Your task to perform on an android device: open app "Nova Launcher" Image 0: 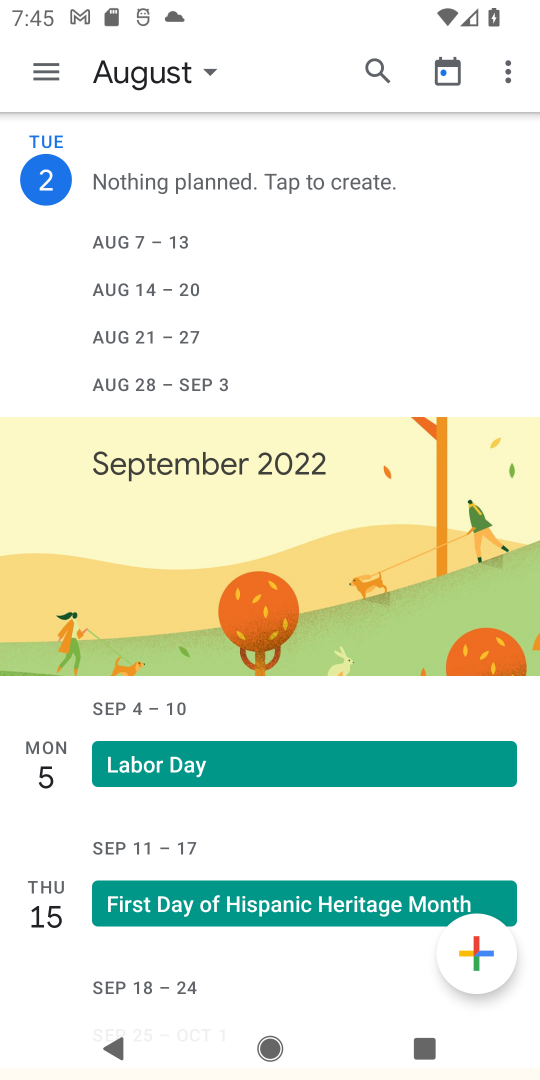
Step 0: press home button
Your task to perform on an android device: open app "Nova Launcher" Image 1: 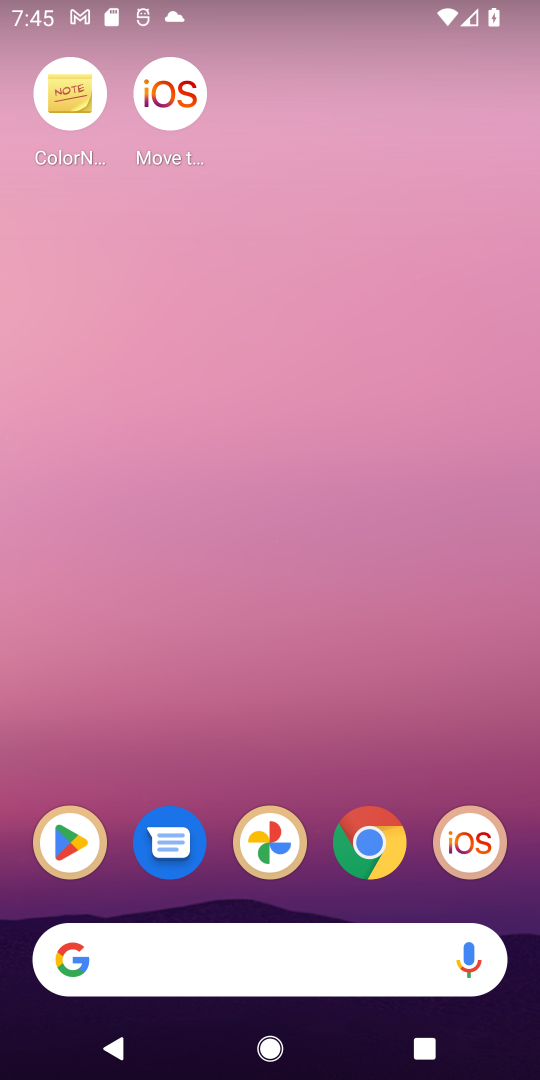
Step 1: click (49, 828)
Your task to perform on an android device: open app "Nova Launcher" Image 2: 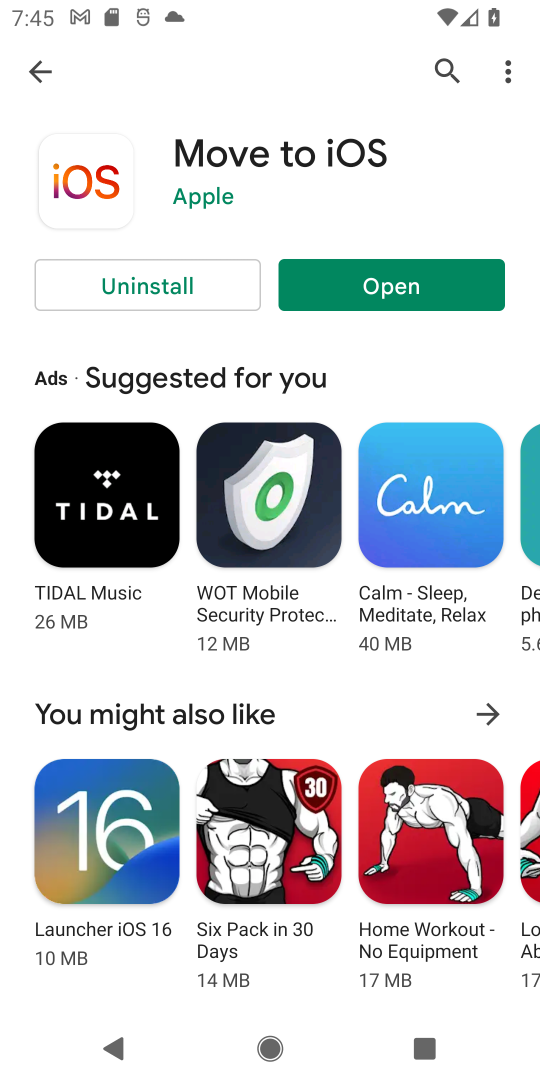
Step 2: click (39, 72)
Your task to perform on an android device: open app "Nova Launcher" Image 3: 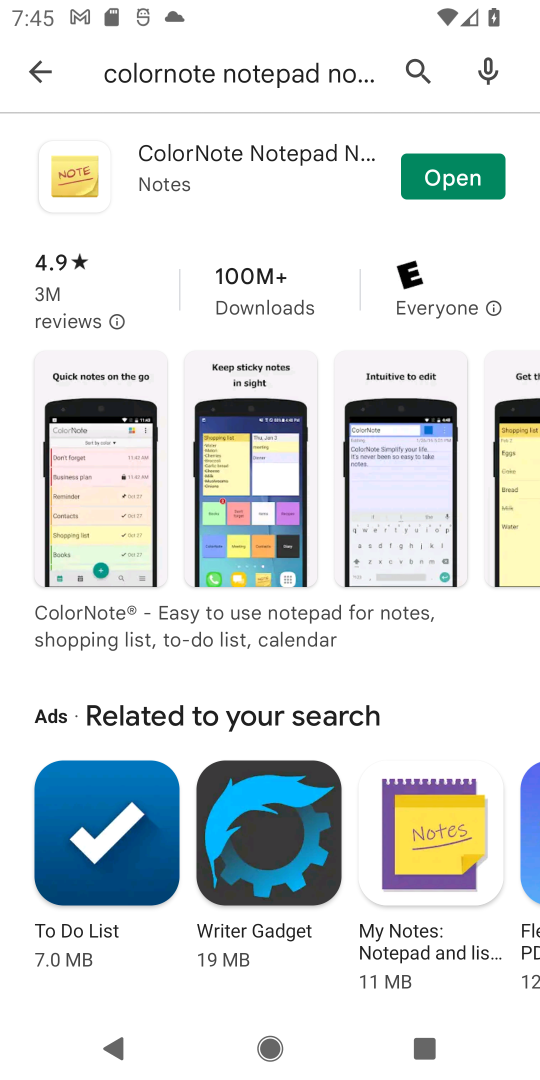
Step 3: click (241, 70)
Your task to perform on an android device: open app "Nova Launcher" Image 4: 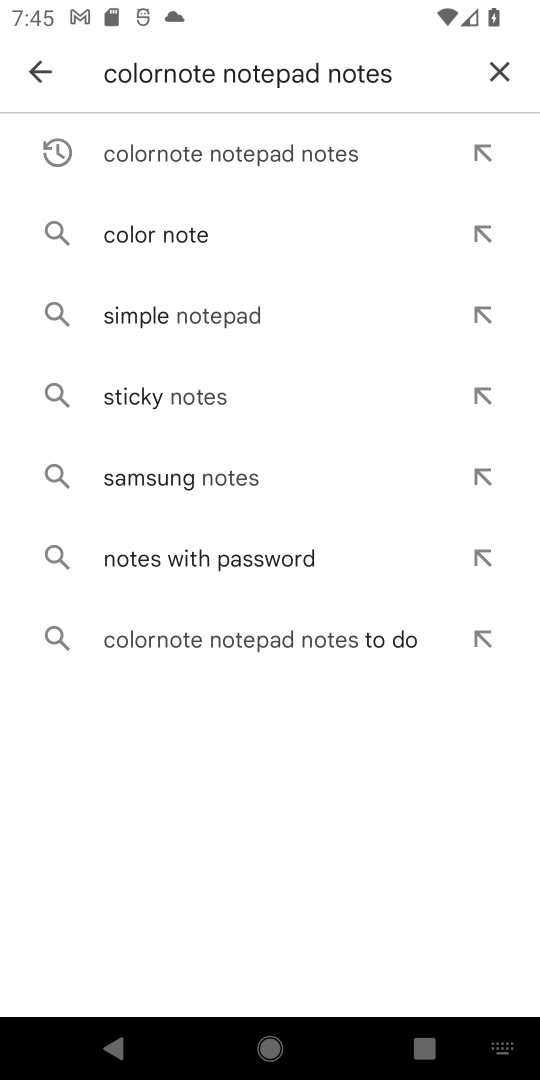
Step 4: click (493, 67)
Your task to perform on an android device: open app "Nova Launcher" Image 5: 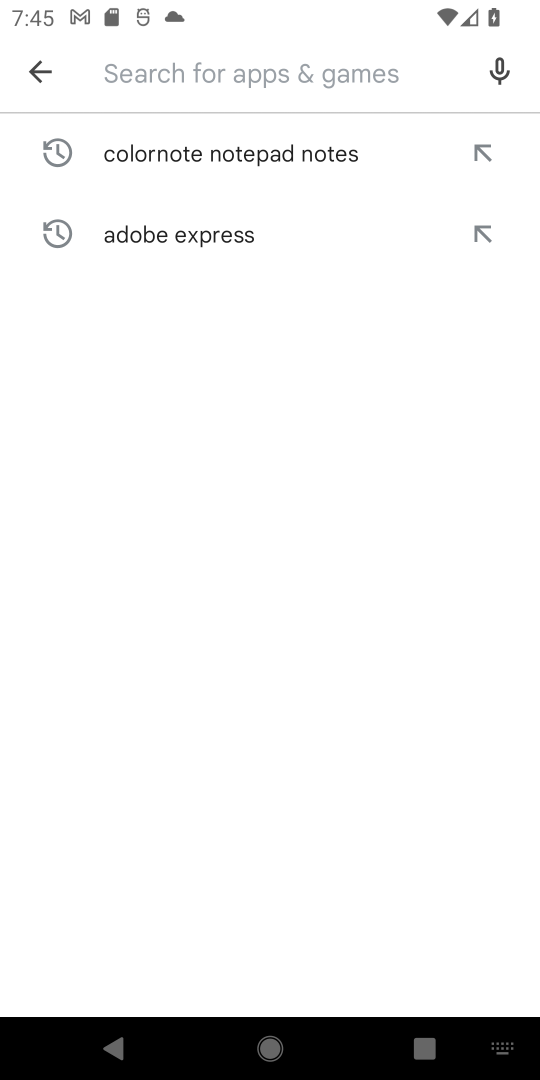
Step 5: type "NOva launcher"
Your task to perform on an android device: open app "Nova Launcher" Image 6: 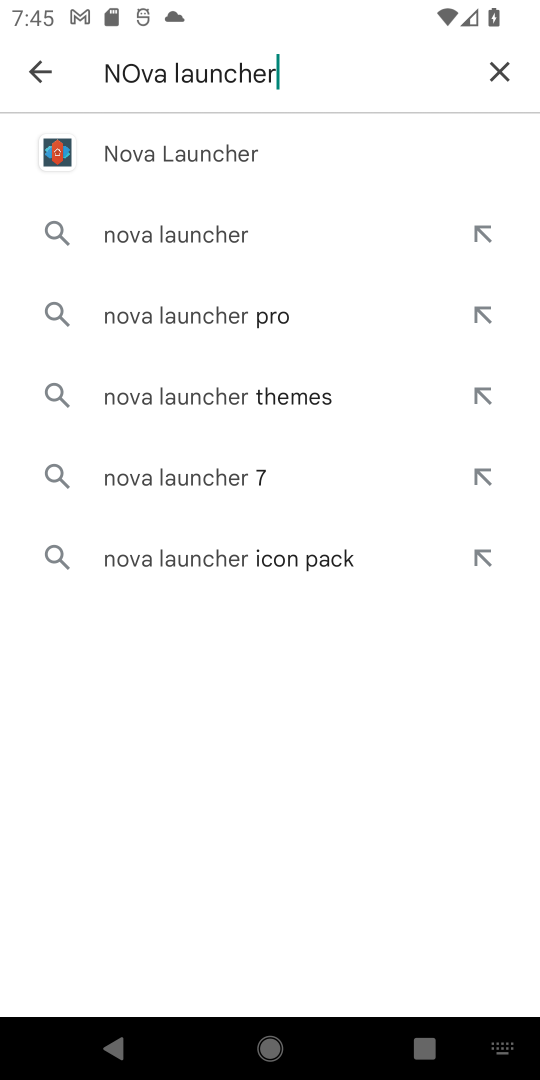
Step 6: click (230, 149)
Your task to perform on an android device: open app "Nova Launcher" Image 7: 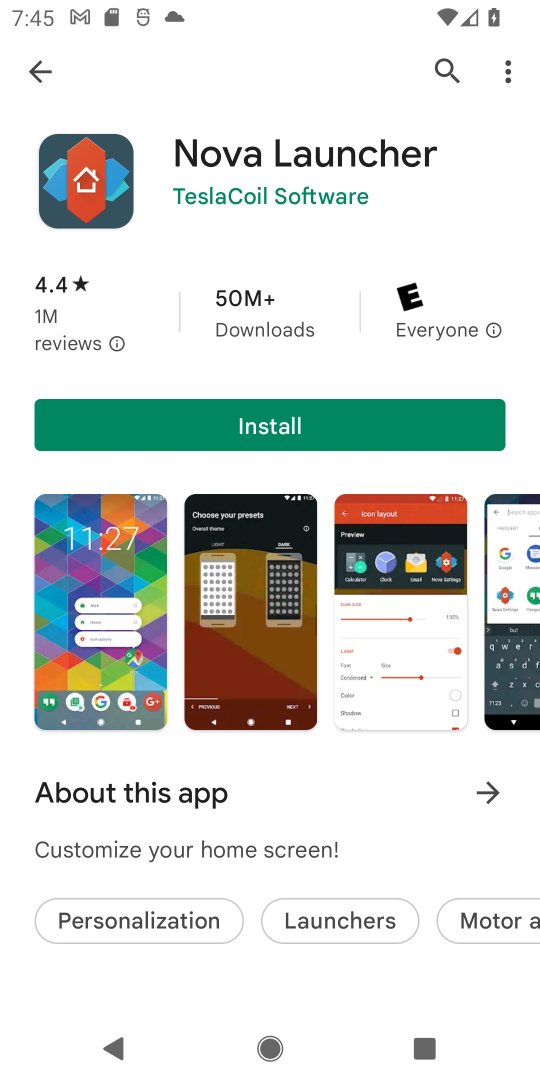
Step 7: task complete